Your task to perform on an android device: turn off picture-in-picture Image 0: 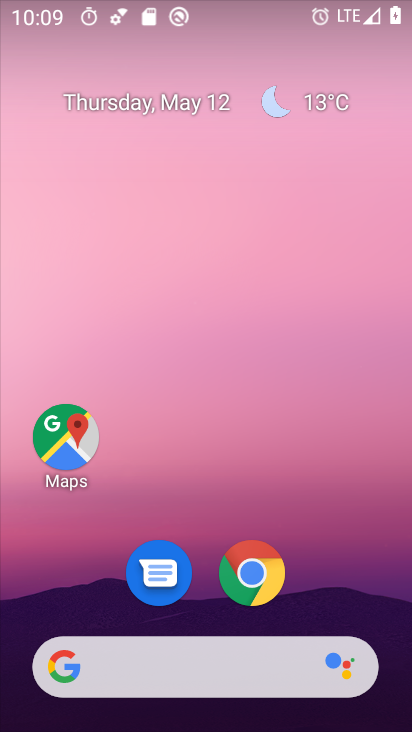
Step 0: click (241, 573)
Your task to perform on an android device: turn off picture-in-picture Image 1: 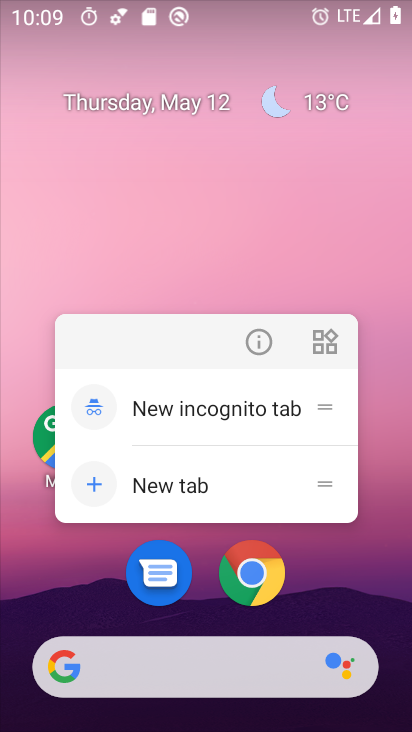
Step 1: click (256, 344)
Your task to perform on an android device: turn off picture-in-picture Image 2: 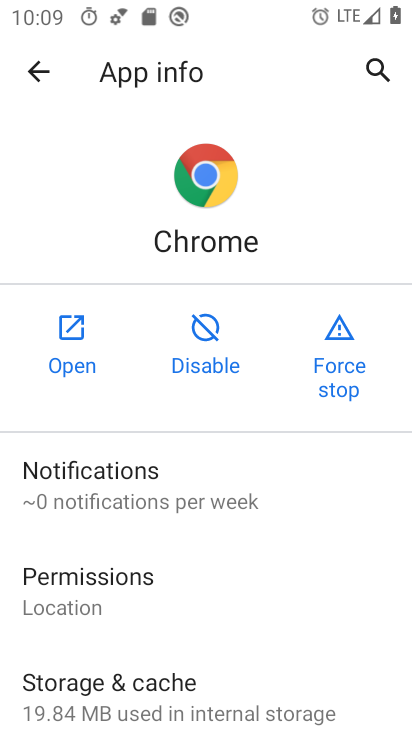
Step 2: drag from (273, 631) to (295, 349)
Your task to perform on an android device: turn off picture-in-picture Image 3: 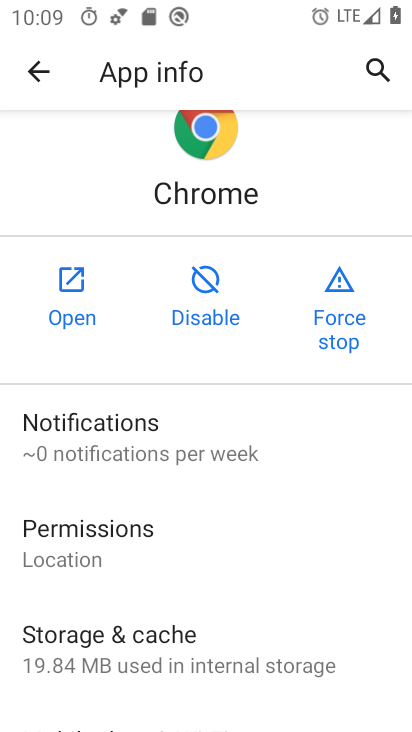
Step 3: drag from (280, 671) to (299, 417)
Your task to perform on an android device: turn off picture-in-picture Image 4: 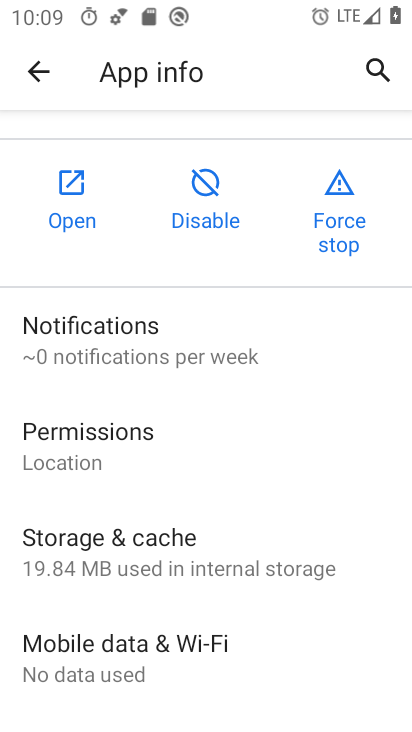
Step 4: drag from (317, 547) to (318, 359)
Your task to perform on an android device: turn off picture-in-picture Image 5: 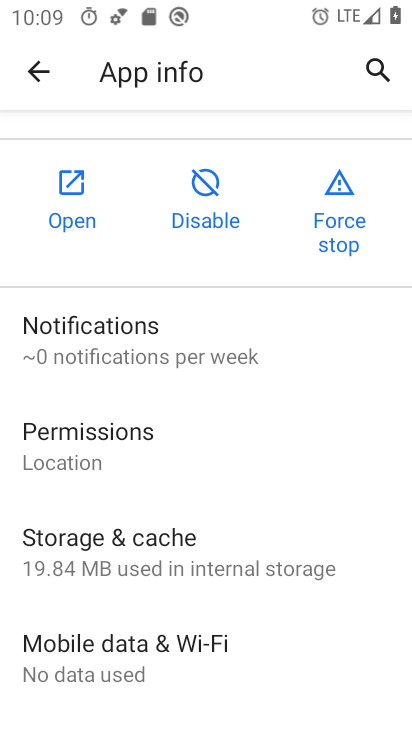
Step 5: drag from (330, 668) to (333, 358)
Your task to perform on an android device: turn off picture-in-picture Image 6: 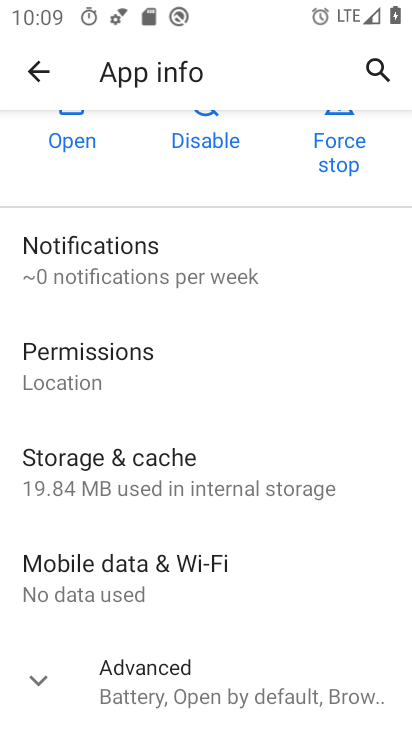
Step 6: click (40, 678)
Your task to perform on an android device: turn off picture-in-picture Image 7: 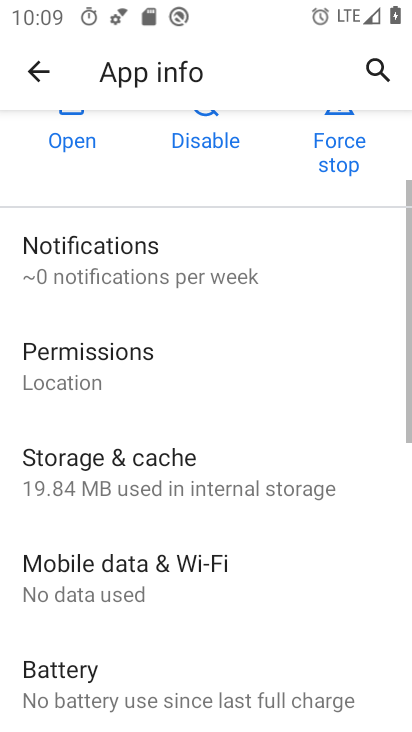
Step 7: drag from (323, 672) to (333, 371)
Your task to perform on an android device: turn off picture-in-picture Image 8: 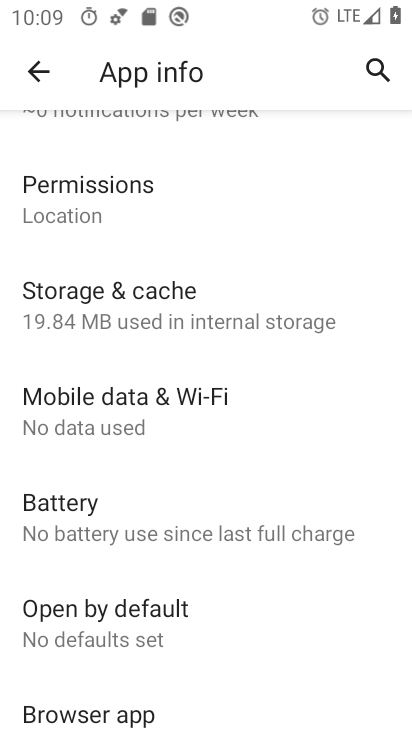
Step 8: drag from (315, 682) to (340, 375)
Your task to perform on an android device: turn off picture-in-picture Image 9: 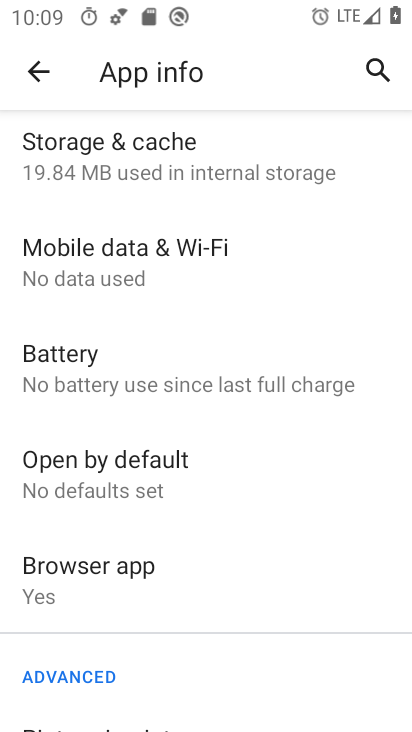
Step 9: drag from (284, 659) to (296, 320)
Your task to perform on an android device: turn off picture-in-picture Image 10: 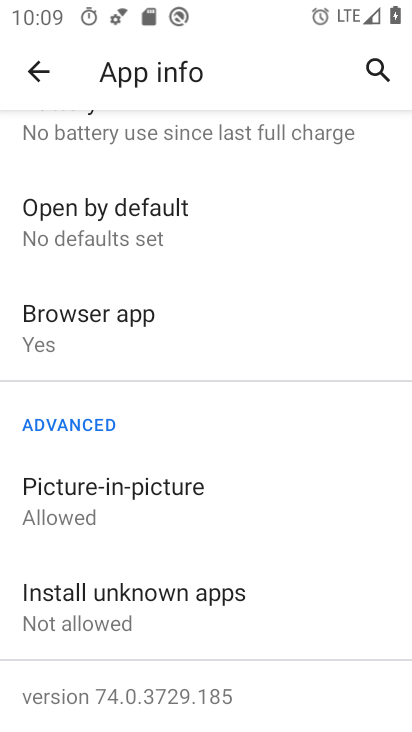
Step 10: click (88, 498)
Your task to perform on an android device: turn off picture-in-picture Image 11: 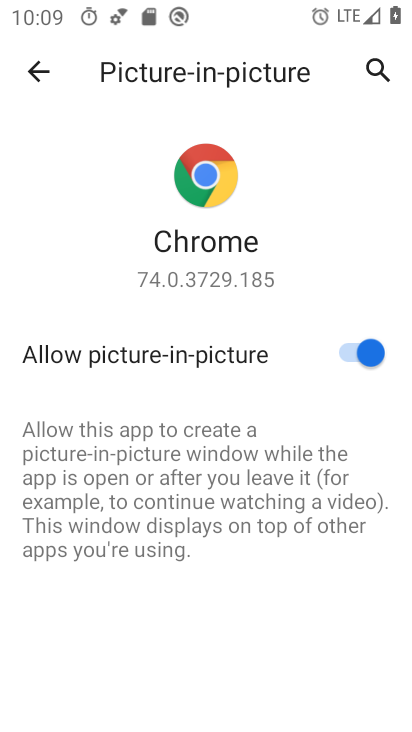
Step 11: click (347, 350)
Your task to perform on an android device: turn off picture-in-picture Image 12: 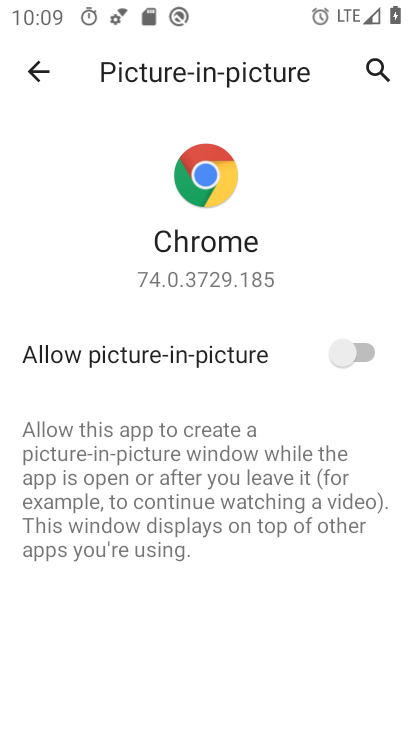
Step 12: task complete